Your task to perform on an android device: turn off notifications settings in the gmail app Image 0: 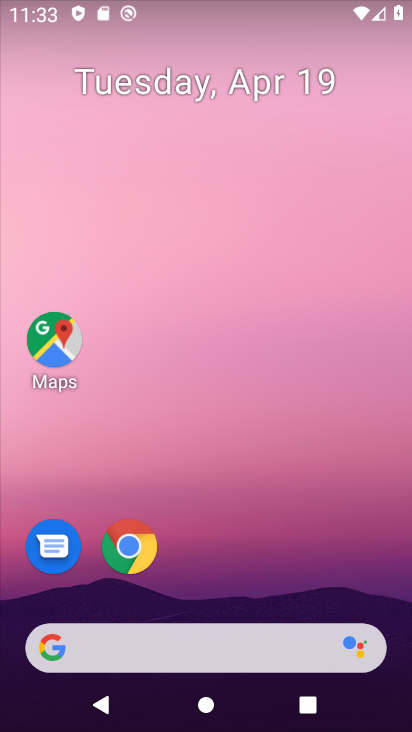
Step 0: drag from (354, 515) to (337, 9)
Your task to perform on an android device: turn off notifications settings in the gmail app Image 1: 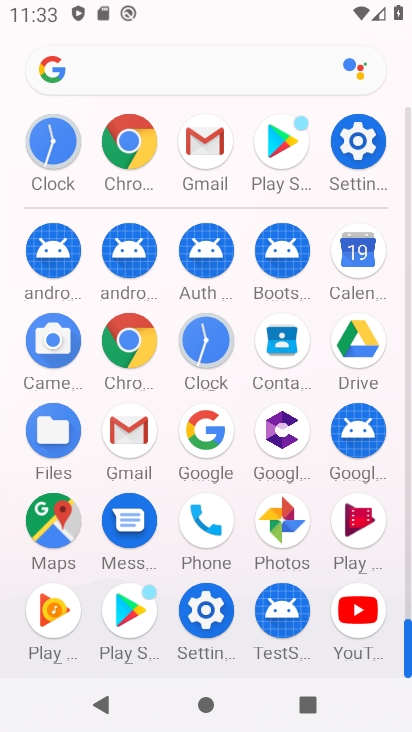
Step 1: drag from (9, 530) to (1, 214)
Your task to perform on an android device: turn off notifications settings in the gmail app Image 2: 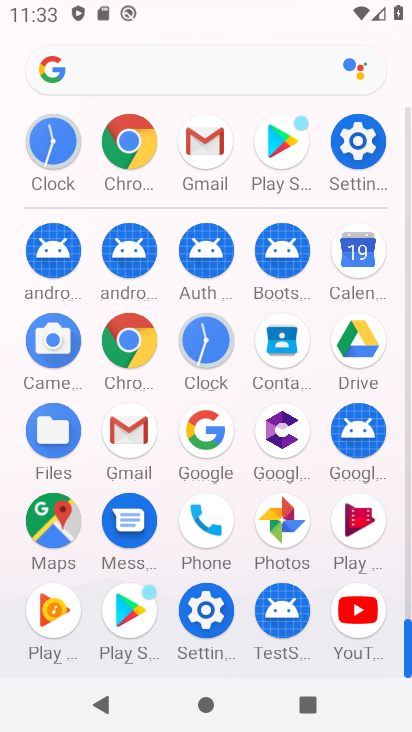
Step 2: click (131, 425)
Your task to perform on an android device: turn off notifications settings in the gmail app Image 3: 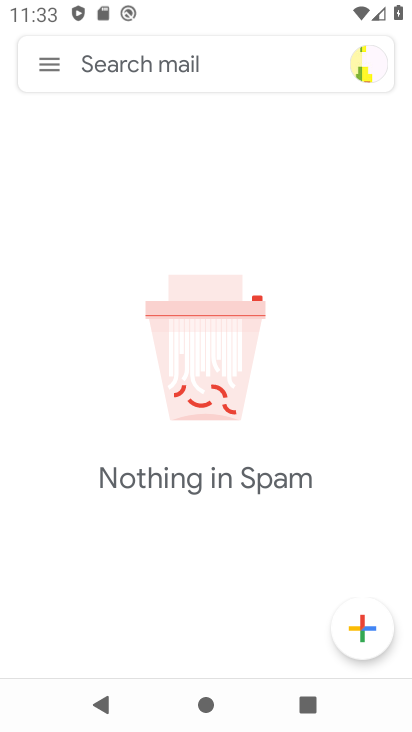
Step 3: click (60, 64)
Your task to perform on an android device: turn off notifications settings in the gmail app Image 4: 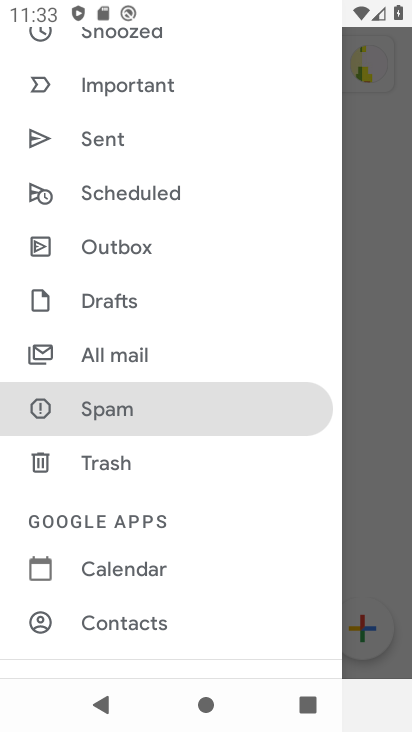
Step 4: drag from (222, 576) to (198, 166)
Your task to perform on an android device: turn off notifications settings in the gmail app Image 5: 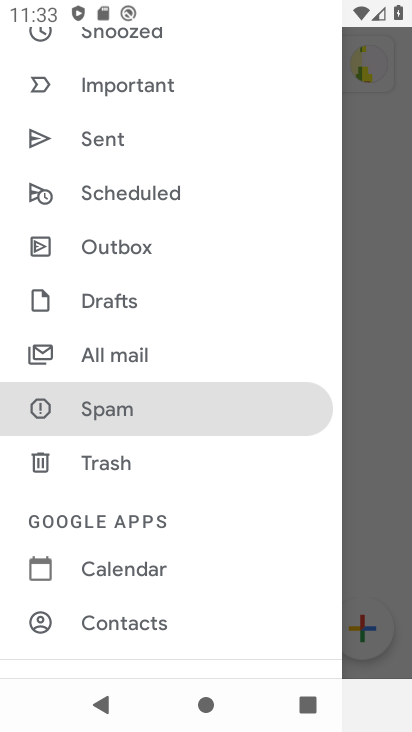
Step 5: drag from (185, 547) to (183, 203)
Your task to perform on an android device: turn off notifications settings in the gmail app Image 6: 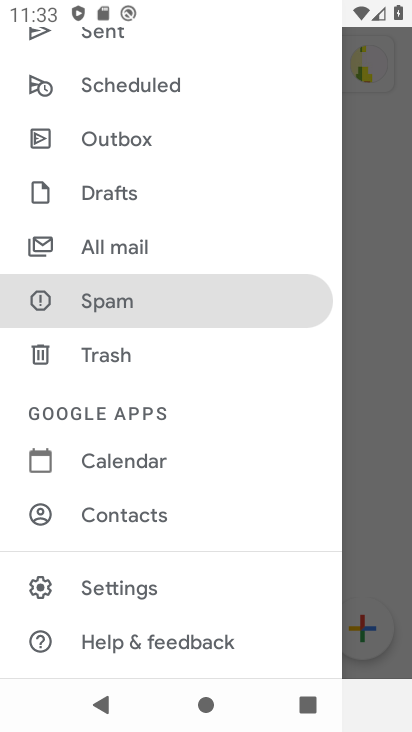
Step 6: click (137, 594)
Your task to perform on an android device: turn off notifications settings in the gmail app Image 7: 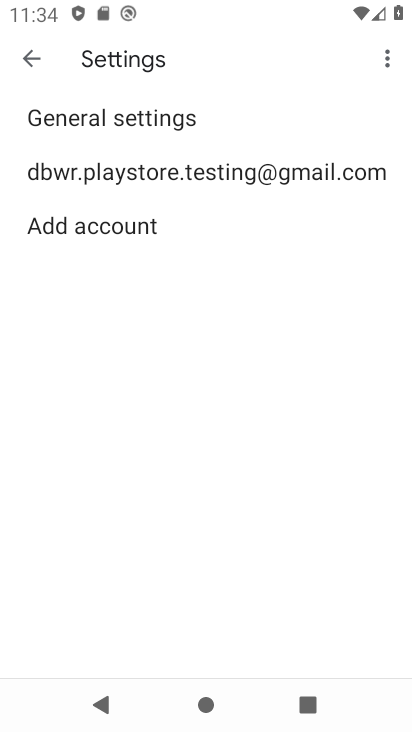
Step 7: click (264, 169)
Your task to perform on an android device: turn off notifications settings in the gmail app Image 8: 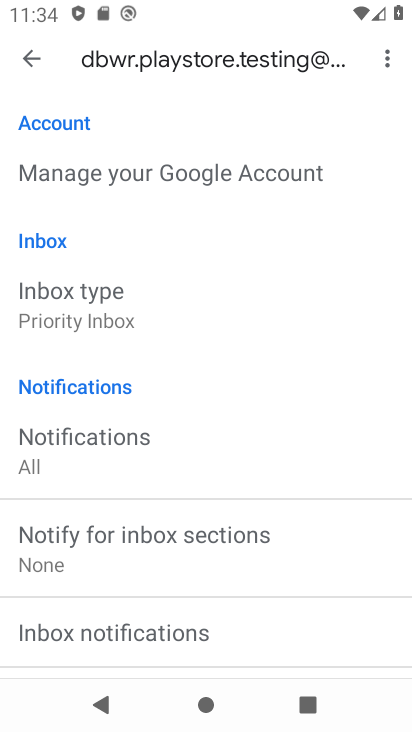
Step 8: drag from (230, 473) to (238, 190)
Your task to perform on an android device: turn off notifications settings in the gmail app Image 9: 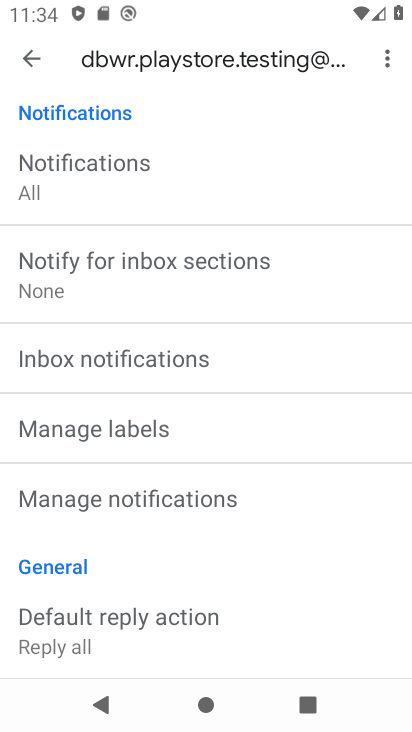
Step 9: drag from (266, 565) to (276, 193)
Your task to perform on an android device: turn off notifications settings in the gmail app Image 10: 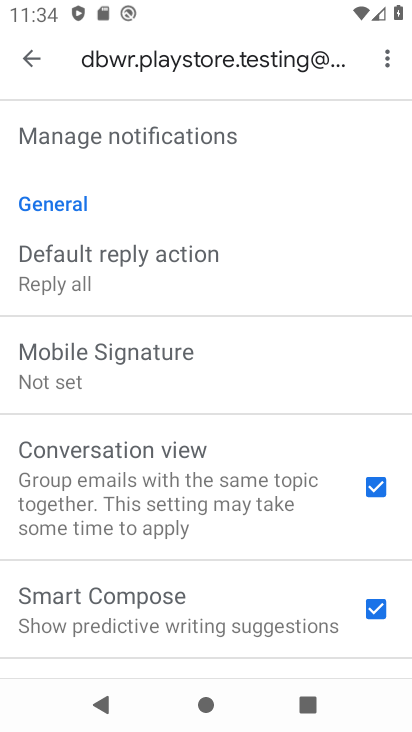
Step 10: drag from (231, 253) to (225, 478)
Your task to perform on an android device: turn off notifications settings in the gmail app Image 11: 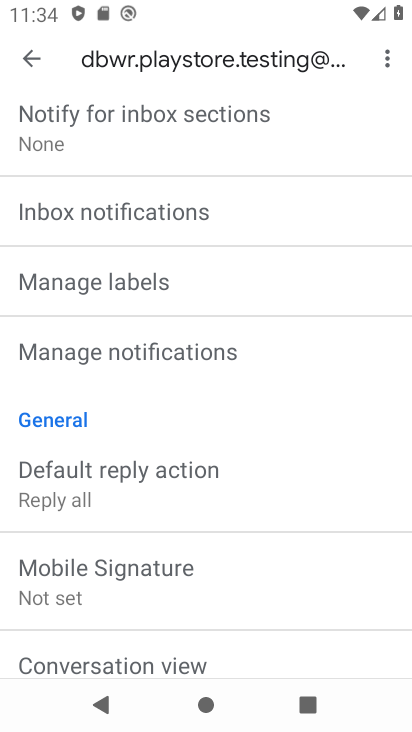
Step 11: click (201, 334)
Your task to perform on an android device: turn off notifications settings in the gmail app Image 12: 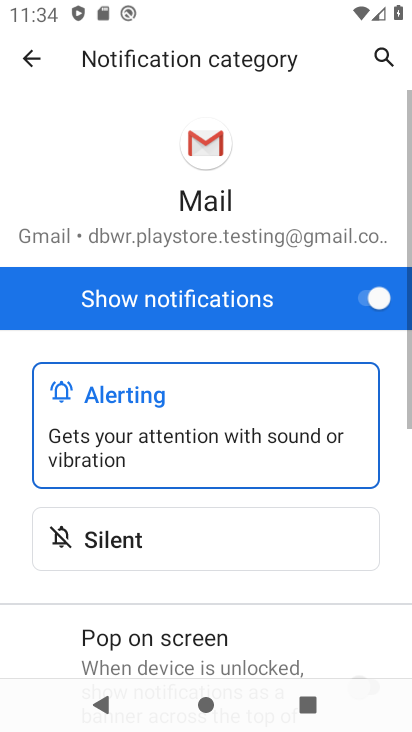
Step 12: click (366, 285)
Your task to perform on an android device: turn off notifications settings in the gmail app Image 13: 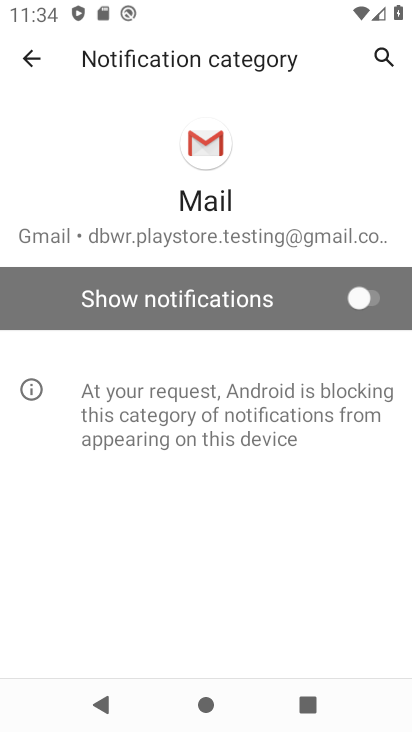
Step 13: task complete